Your task to perform on an android device: Open ESPN.com Image 0: 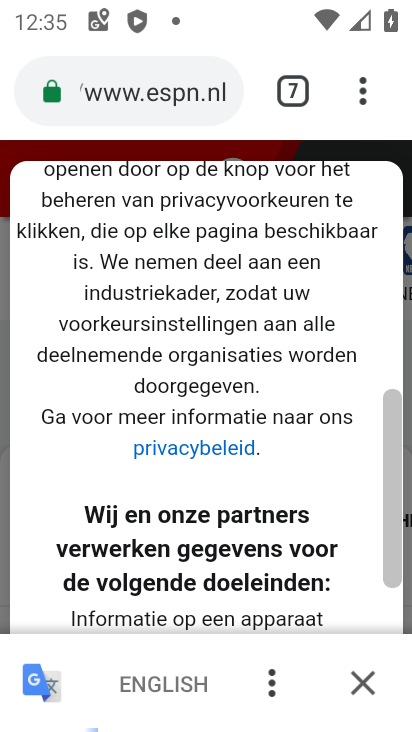
Step 0: task complete